Your task to perform on an android device: check storage Image 0: 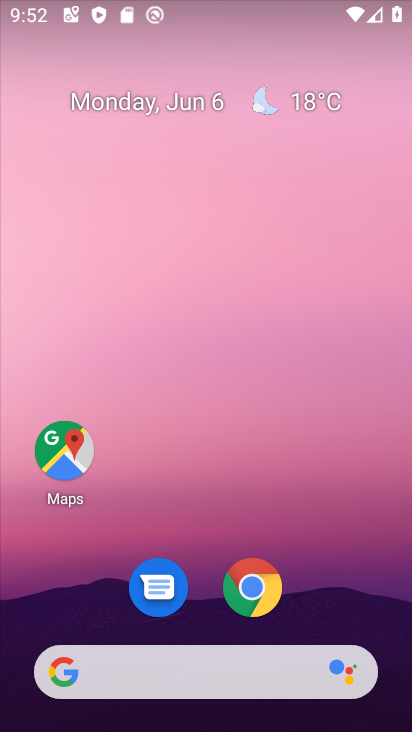
Step 0: drag from (297, 471) to (304, 15)
Your task to perform on an android device: check storage Image 1: 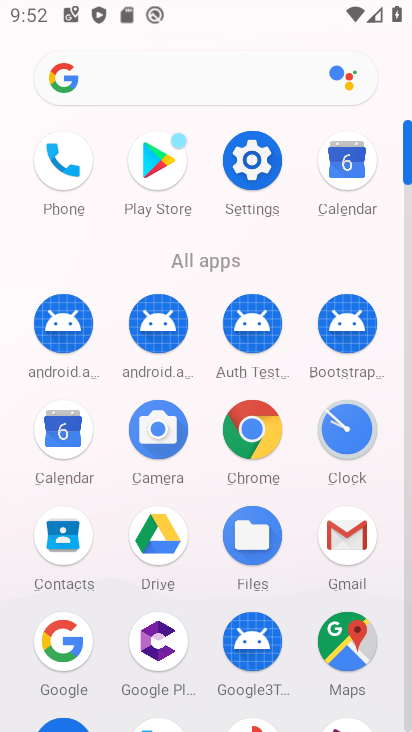
Step 1: click (255, 161)
Your task to perform on an android device: check storage Image 2: 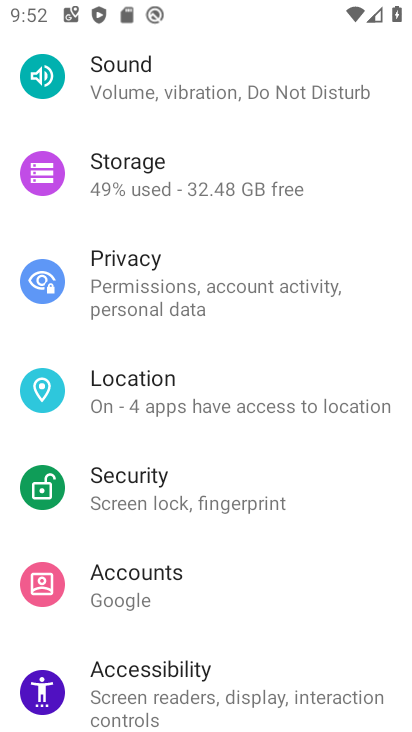
Step 2: drag from (308, 148) to (331, 452)
Your task to perform on an android device: check storage Image 3: 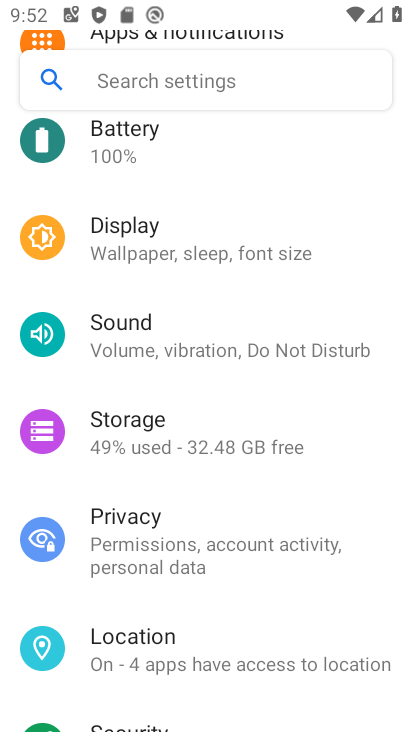
Step 3: click (245, 470)
Your task to perform on an android device: check storage Image 4: 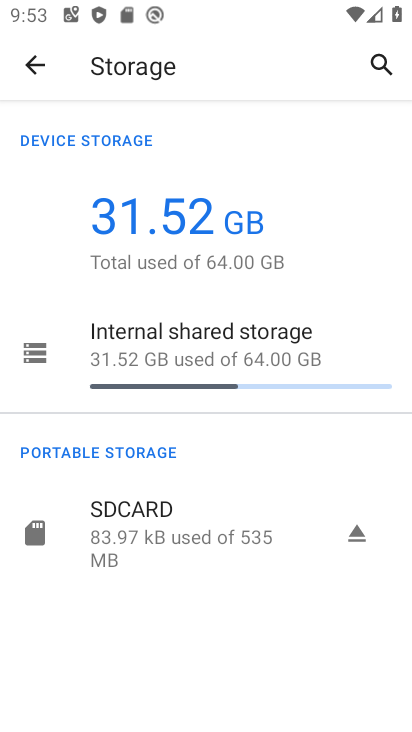
Step 4: task complete